Your task to perform on an android device: Go to location settings Image 0: 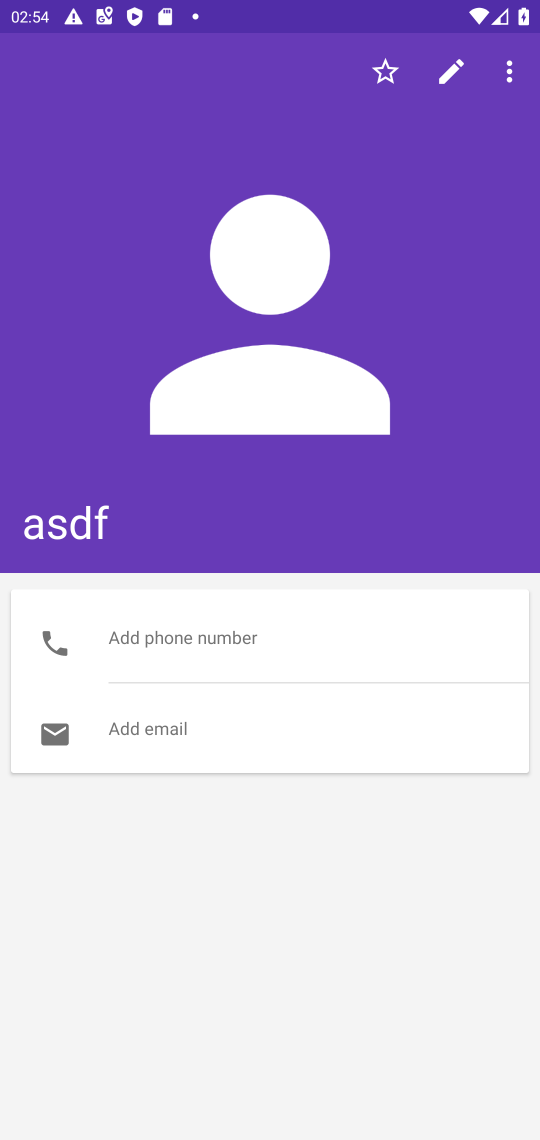
Step 0: press home button
Your task to perform on an android device: Go to location settings Image 1: 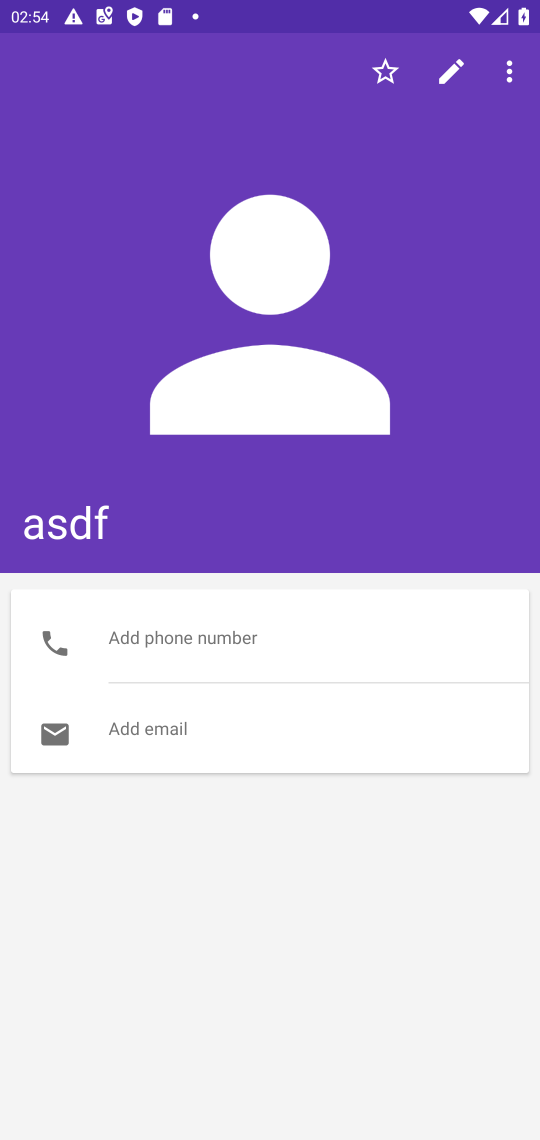
Step 1: press home button
Your task to perform on an android device: Go to location settings Image 2: 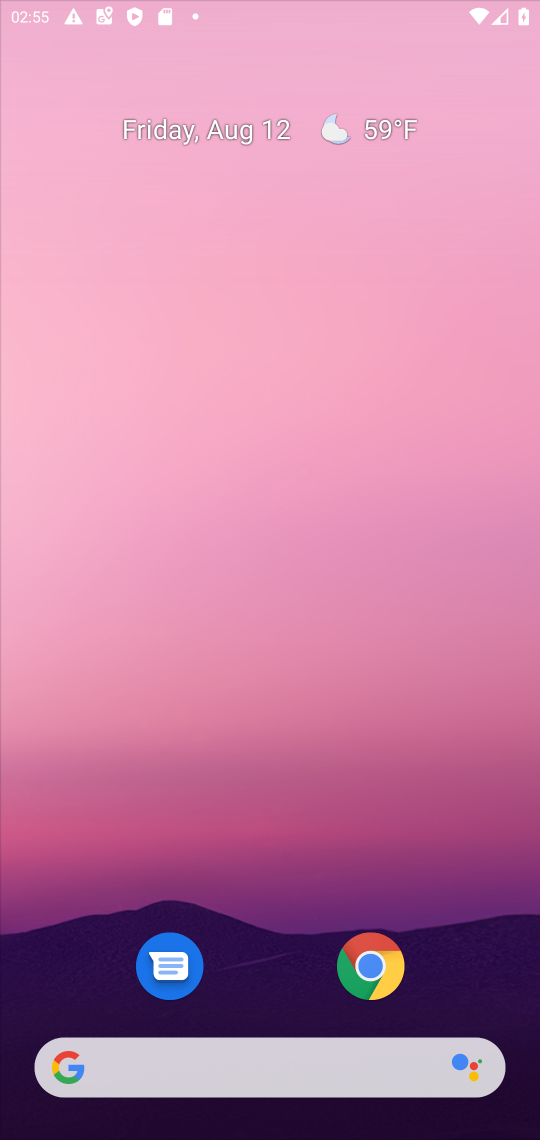
Step 2: press home button
Your task to perform on an android device: Go to location settings Image 3: 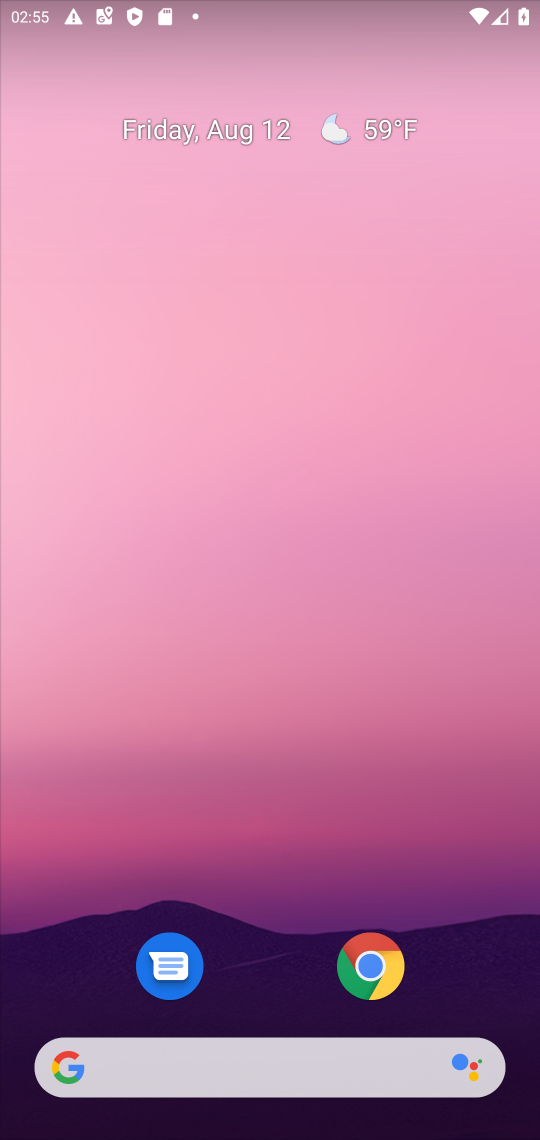
Step 3: drag from (253, 943) to (310, 136)
Your task to perform on an android device: Go to location settings Image 4: 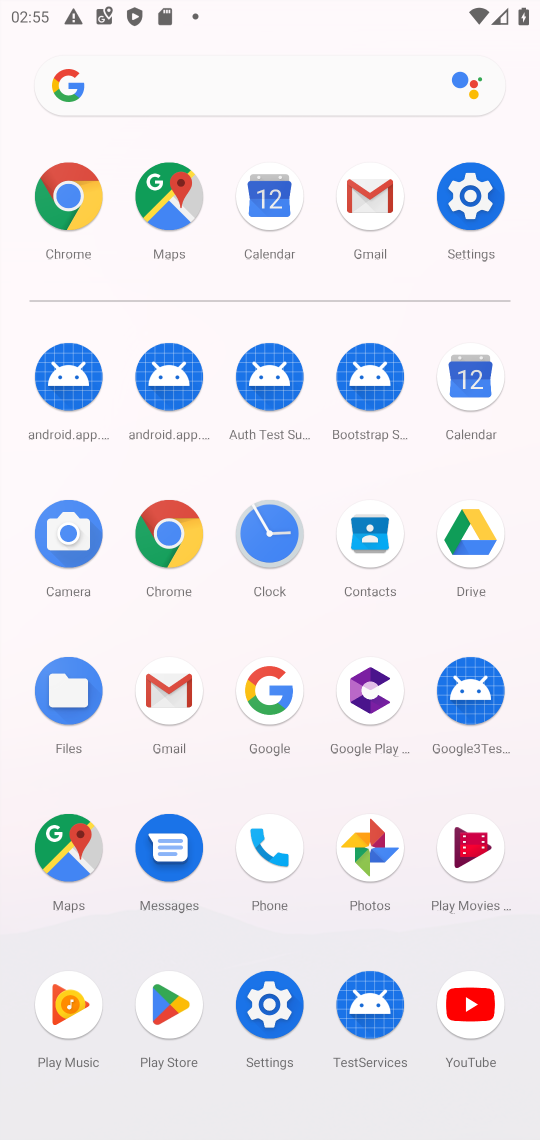
Step 4: click (256, 1026)
Your task to perform on an android device: Go to location settings Image 5: 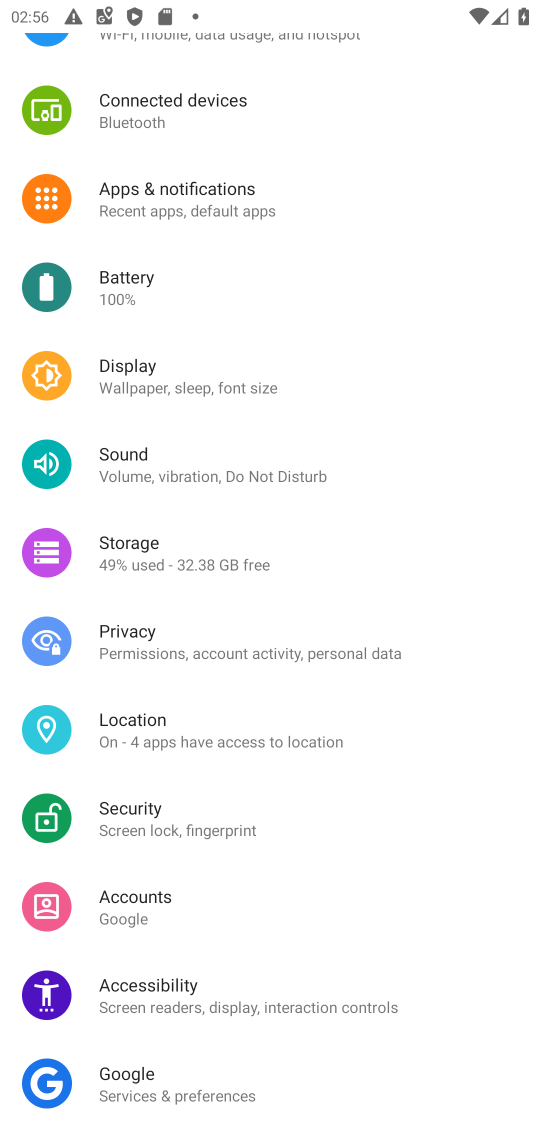
Step 5: click (179, 701)
Your task to perform on an android device: Go to location settings Image 6: 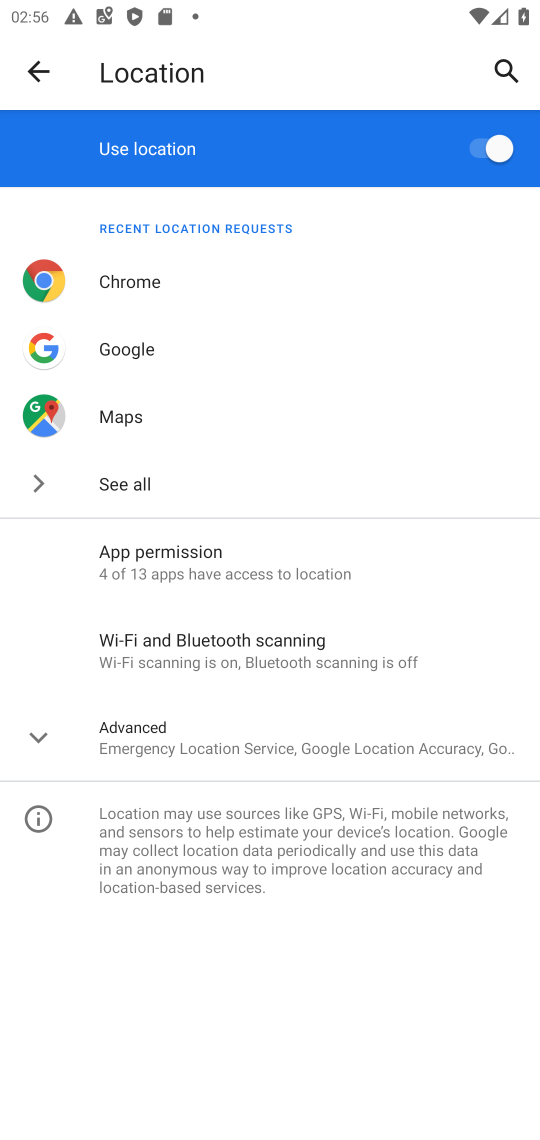
Step 6: task complete